Your task to perform on an android device: change notifications settings Image 0: 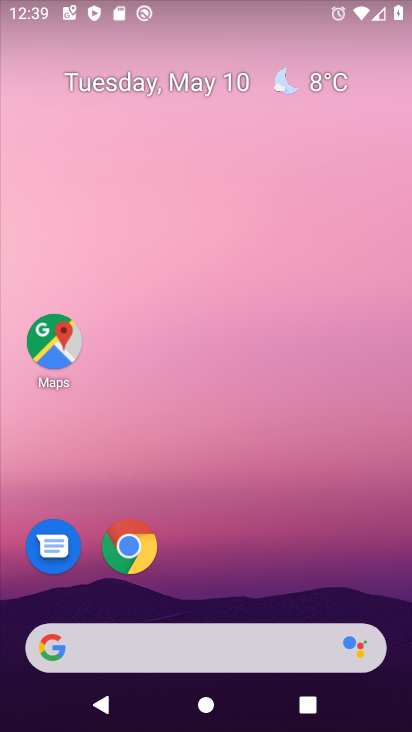
Step 0: drag from (307, 636) to (248, 180)
Your task to perform on an android device: change notifications settings Image 1: 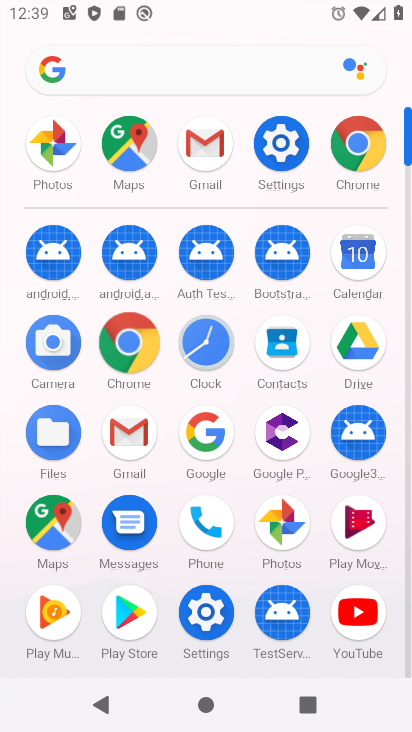
Step 1: click (291, 144)
Your task to perform on an android device: change notifications settings Image 2: 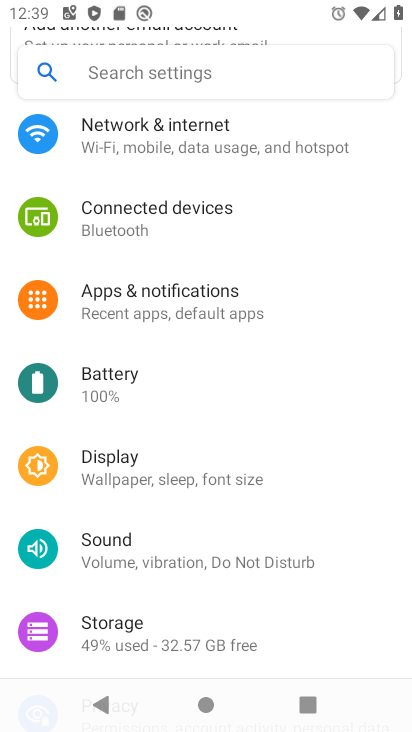
Step 2: click (187, 301)
Your task to perform on an android device: change notifications settings Image 3: 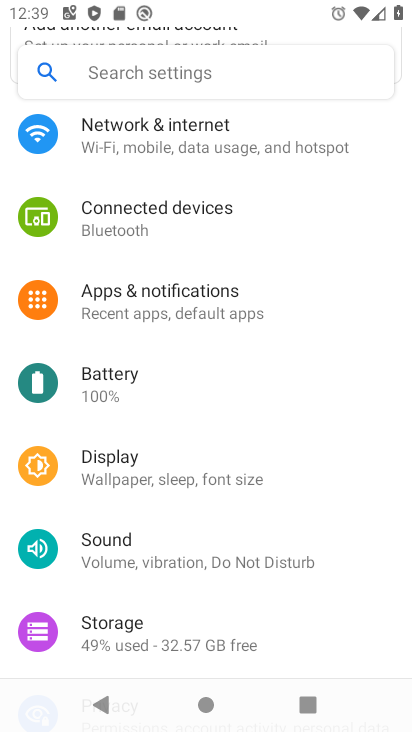
Step 3: click (189, 303)
Your task to perform on an android device: change notifications settings Image 4: 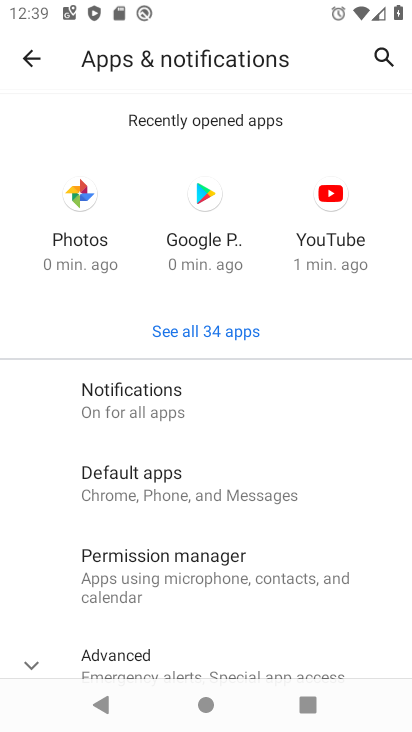
Step 4: click (128, 391)
Your task to perform on an android device: change notifications settings Image 5: 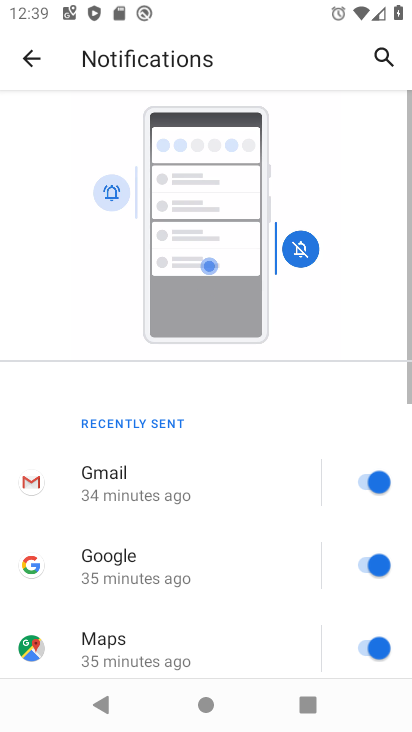
Step 5: drag from (190, 568) to (134, 117)
Your task to perform on an android device: change notifications settings Image 6: 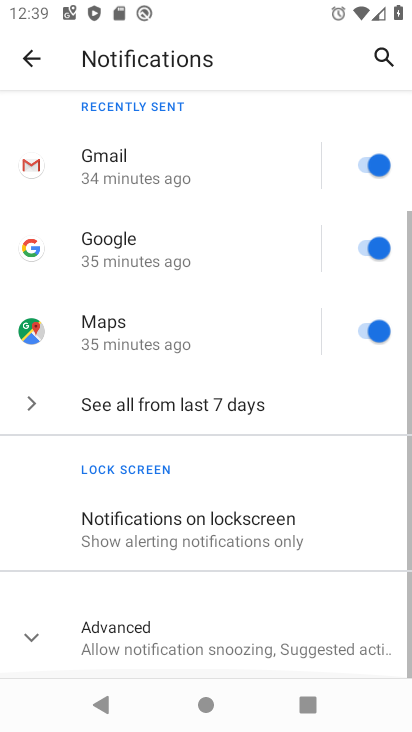
Step 6: drag from (196, 433) to (204, 85)
Your task to perform on an android device: change notifications settings Image 7: 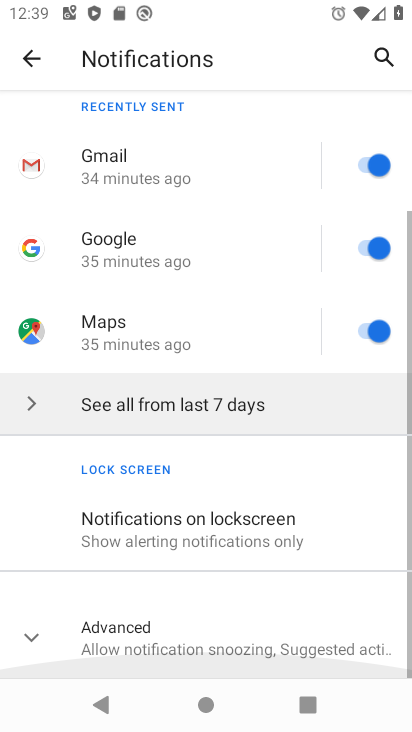
Step 7: drag from (261, 128) to (250, 83)
Your task to perform on an android device: change notifications settings Image 8: 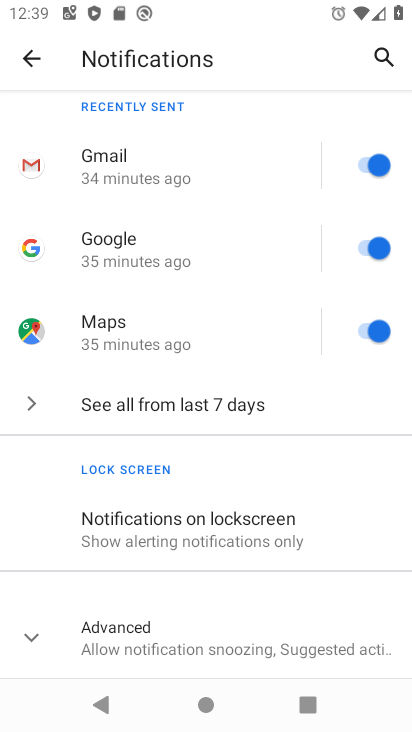
Step 8: click (144, 638)
Your task to perform on an android device: change notifications settings Image 9: 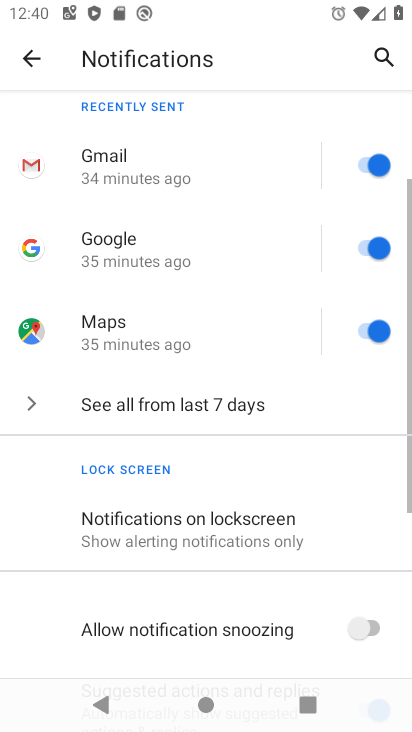
Step 9: drag from (212, 593) to (139, 200)
Your task to perform on an android device: change notifications settings Image 10: 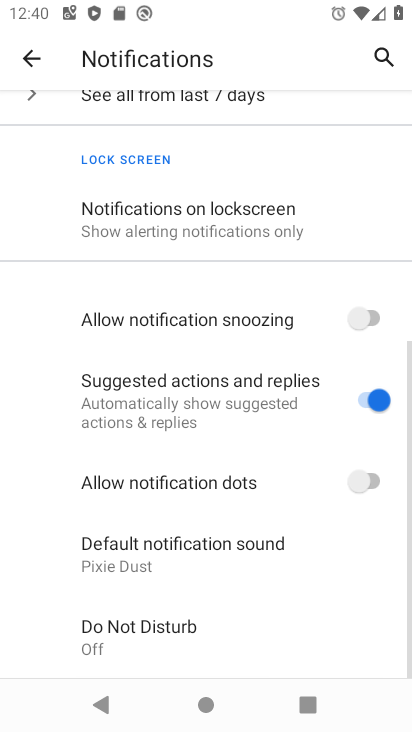
Step 10: drag from (305, 454) to (301, 294)
Your task to perform on an android device: change notifications settings Image 11: 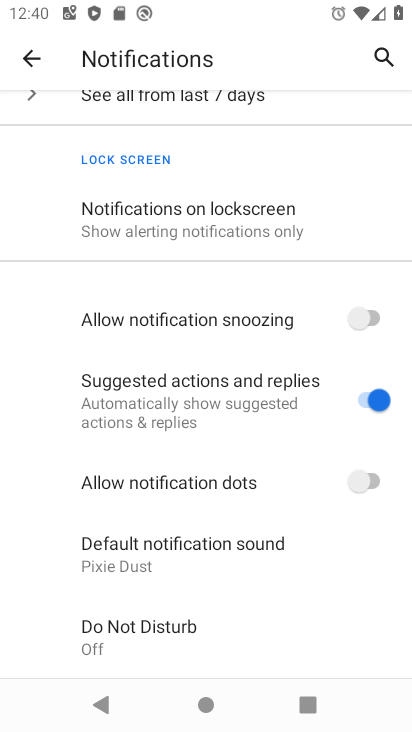
Step 11: click (362, 319)
Your task to perform on an android device: change notifications settings Image 12: 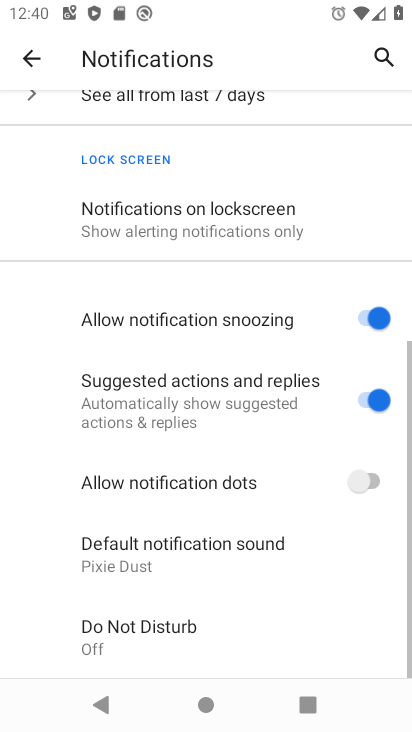
Step 12: click (356, 481)
Your task to perform on an android device: change notifications settings Image 13: 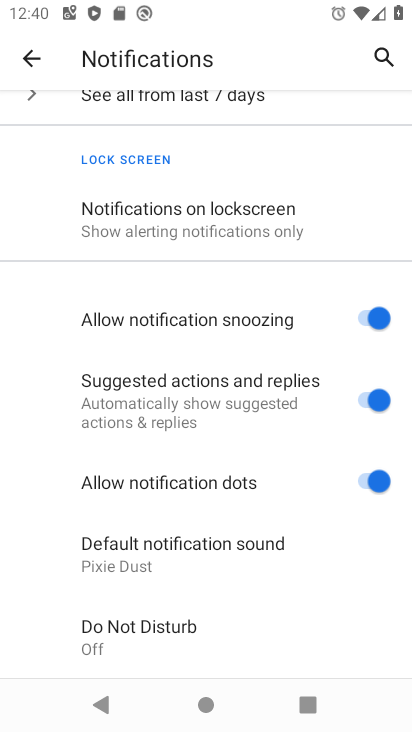
Step 13: task complete